Your task to perform on an android device: turn off location Image 0: 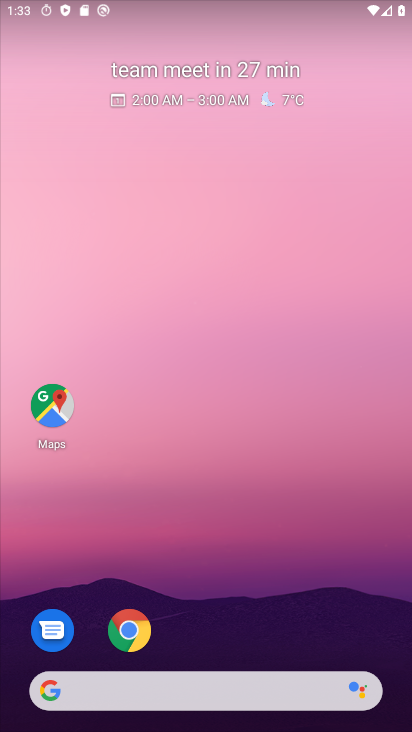
Step 0: drag from (177, 702) to (162, 269)
Your task to perform on an android device: turn off location Image 1: 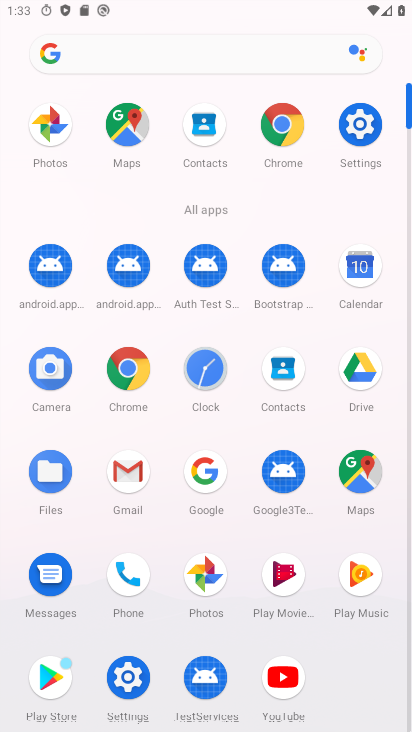
Step 1: click (362, 134)
Your task to perform on an android device: turn off location Image 2: 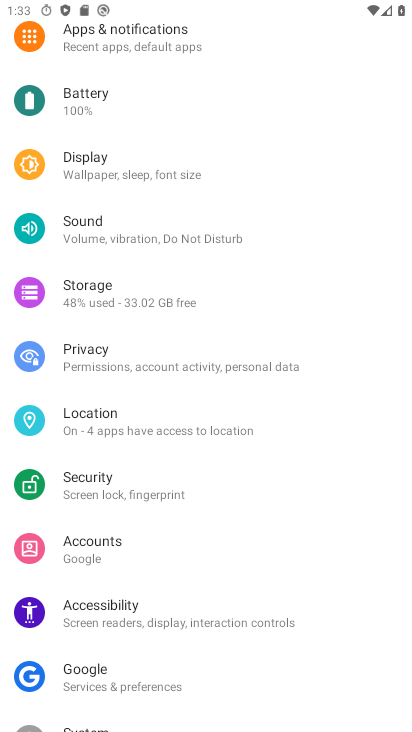
Step 2: drag from (138, 114) to (167, 371)
Your task to perform on an android device: turn off location Image 3: 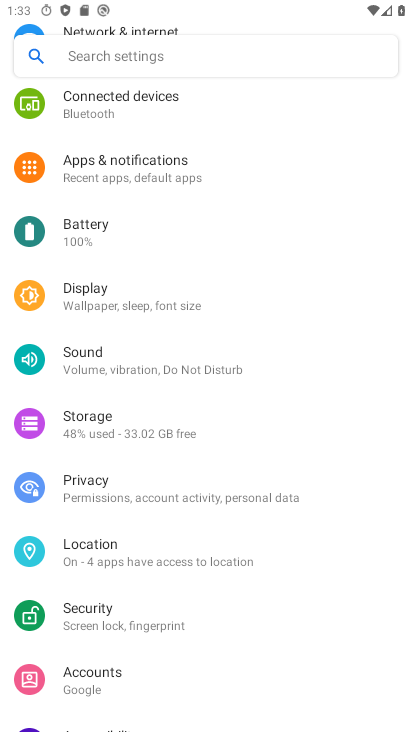
Step 3: click (106, 552)
Your task to perform on an android device: turn off location Image 4: 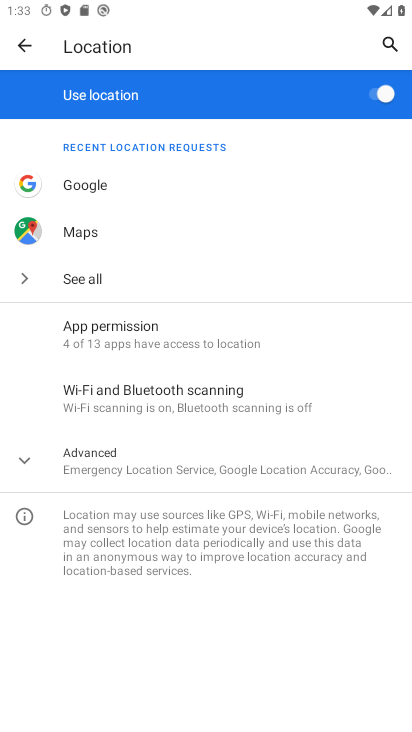
Step 4: click (371, 100)
Your task to perform on an android device: turn off location Image 5: 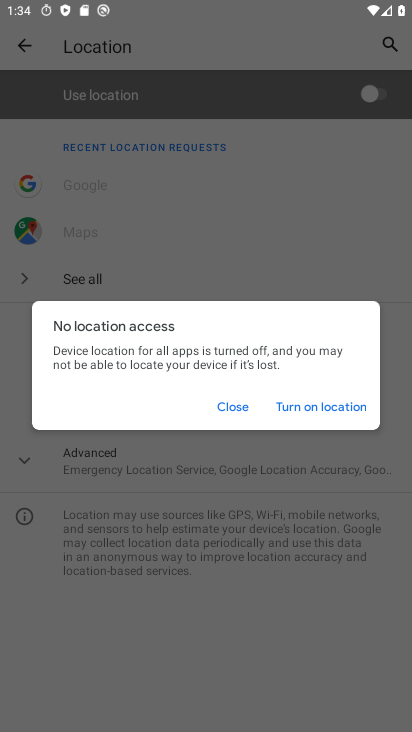
Step 5: task complete